Your task to perform on an android device: refresh tabs in the chrome app Image 0: 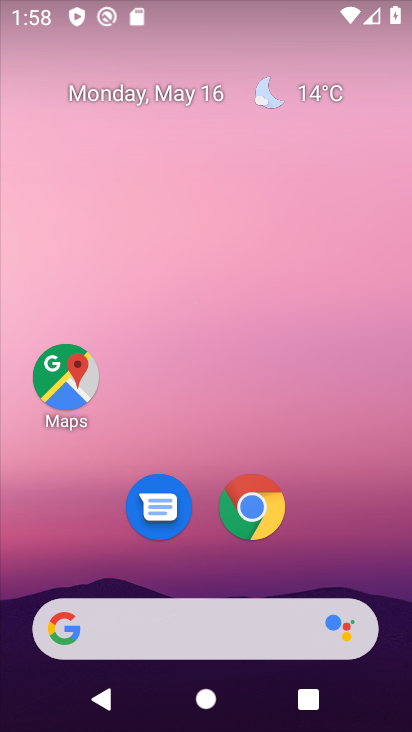
Step 0: drag from (270, 582) to (246, 234)
Your task to perform on an android device: refresh tabs in the chrome app Image 1: 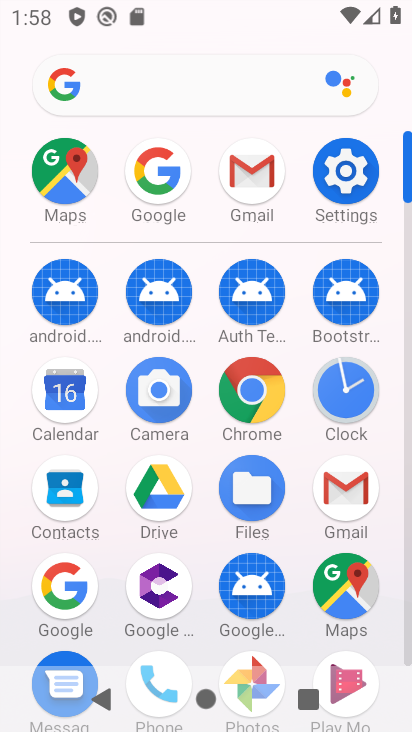
Step 1: click (268, 407)
Your task to perform on an android device: refresh tabs in the chrome app Image 2: 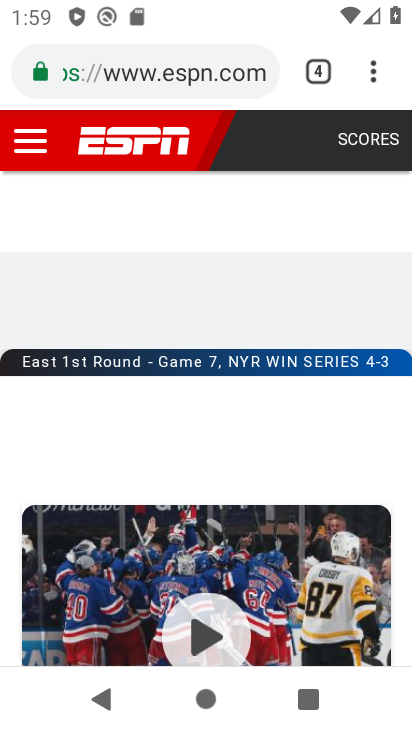
Step 2: click (372, 76)
Your task to perform on an android device: refresh tabs in the chrome app Image 3: 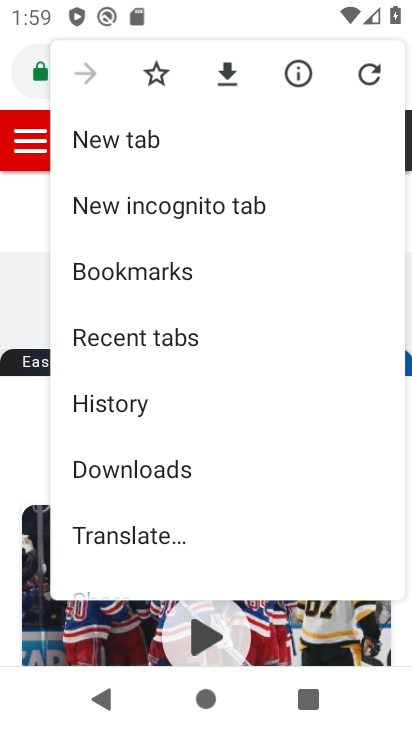
Step 3: click (372, 89)
Your task to perform on an android device: refresh tabs in the chrome app Image 4: 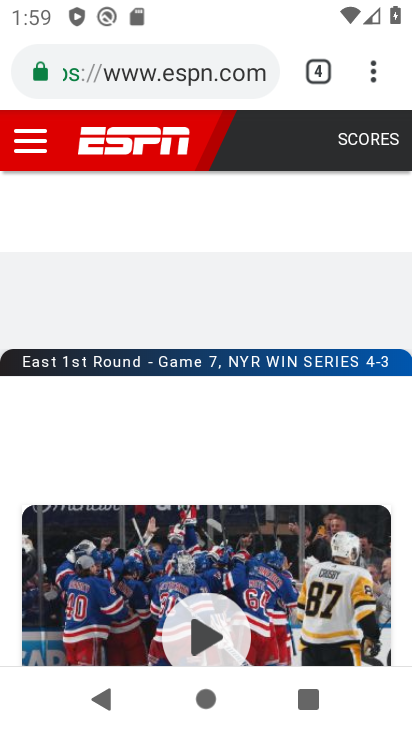
Step 4: task complete